Your task to perform on an android device: Open calendar and show me the first week of next month Image 0: 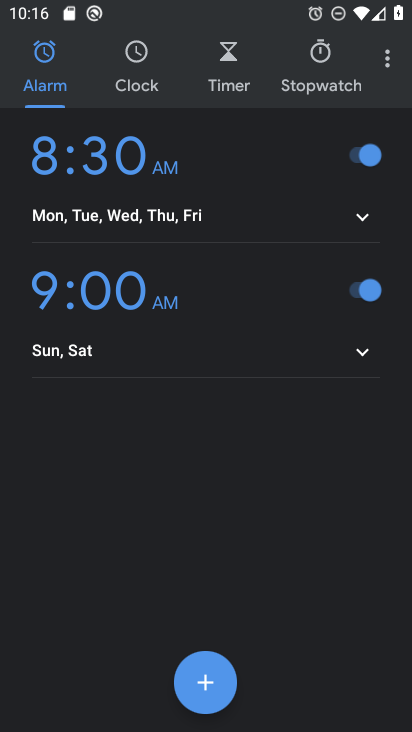
Step 0: press home button
Your task to perform on an android device: Open calendar and show me the first week of next month Image 1: 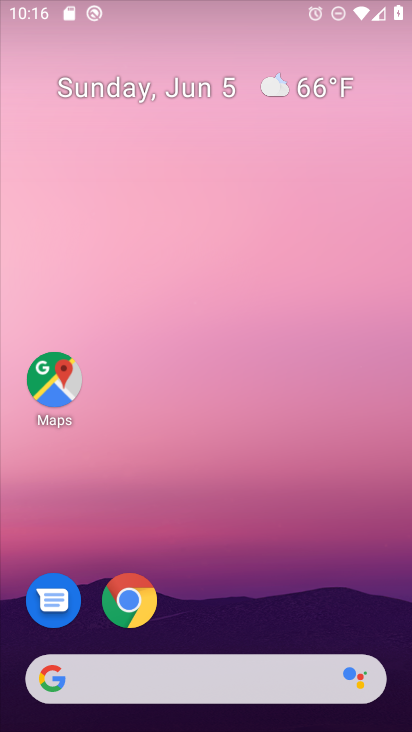
Step 1: drag from (369, 623) to (223, 9)
Your task to perform on an android device: Open calendar and show me the first week of next month Image 2: 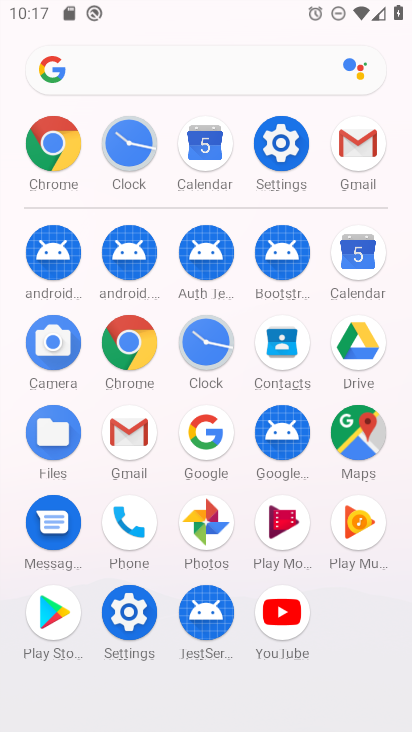
Step 2: click (357, 261)
Your task to perform on an android device: Open calendar and show me the first week of next month Image 3: 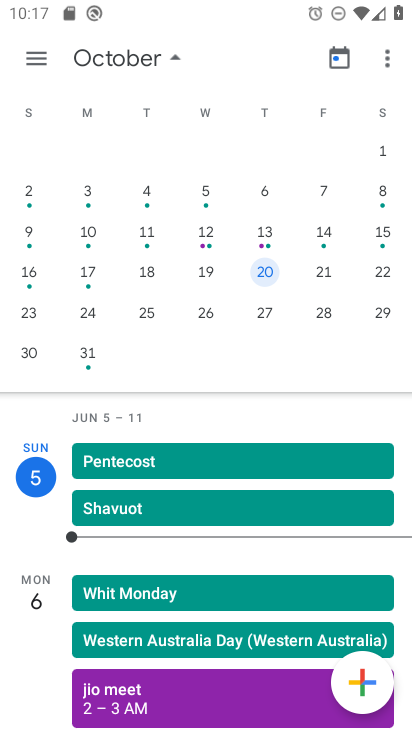
Step 3: drag from (390, 243) to (45, 246)
Your task to perform on an android device: Open calendar and show me the first week of next month Image 4: 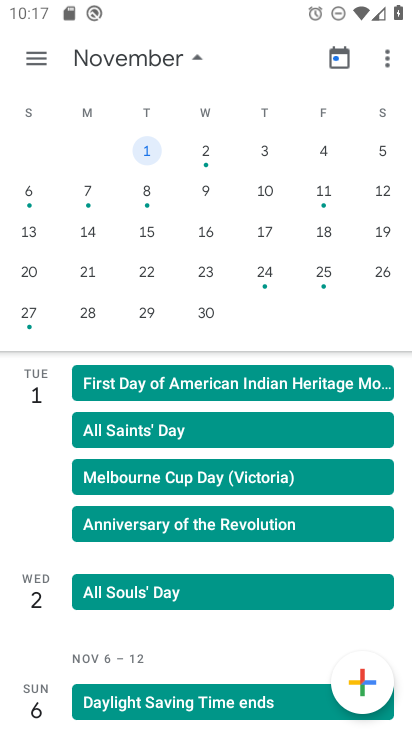
Step 4: click (83, 197)
Your task to perform on an android device: Open calendar and show me the first week of next month Image 5: 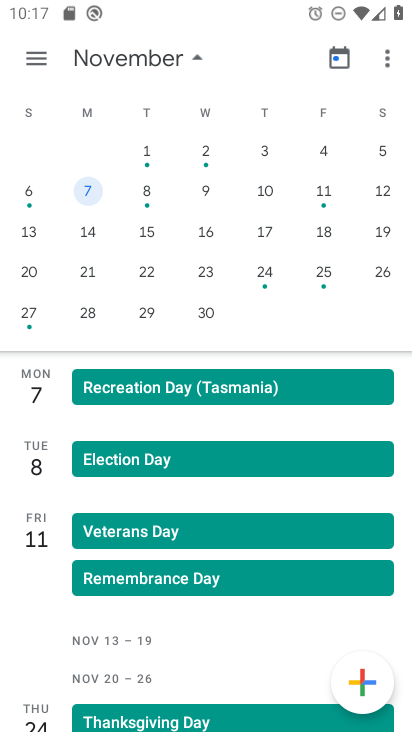
Step 5: task complete